Your task to perform on an android device: Open the stopwatch Image 0: 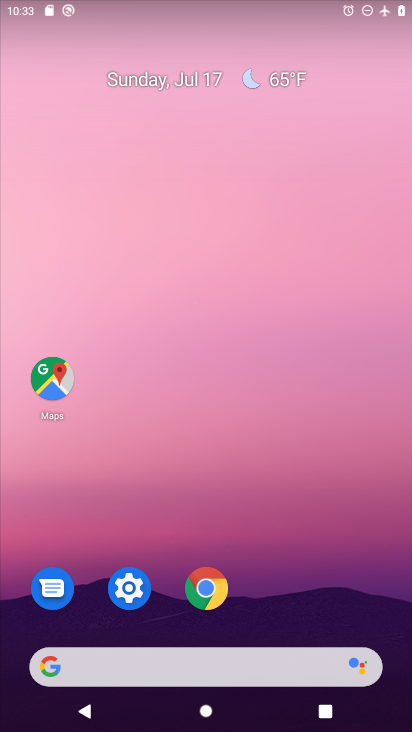
Step 0: drag from (223, 464) to (215, 258)
Your task to perform on an android device: Open the stopwatch Image 1: 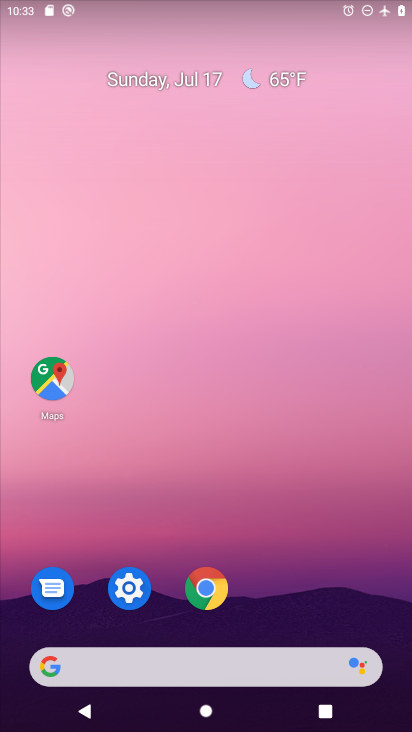
Step 1: drag from (233, 544) to (161, 128)
Your task to perform on an android device: Open the stopwatch Image 2: 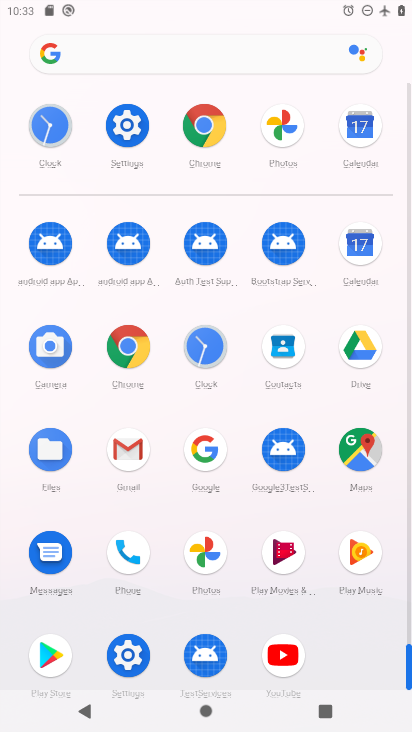
Step 2: drag from (246, 549) to (223, 312)
Your task to perform on an android device: Open the stopwatch Image 3: 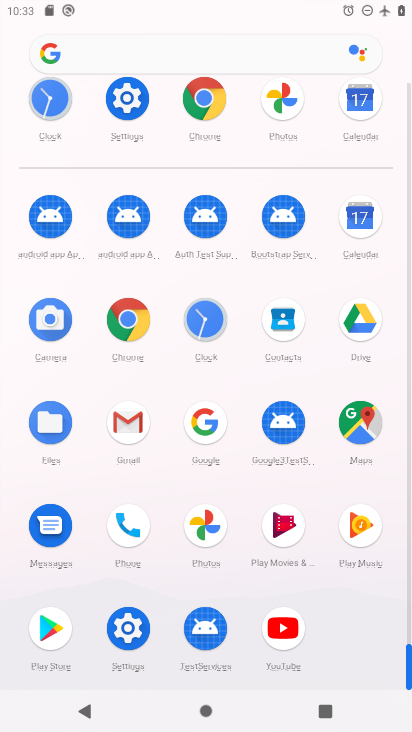
Step 3: click (128, 603)
Your task to perform on an android device: Open the stopwatch Image 4: 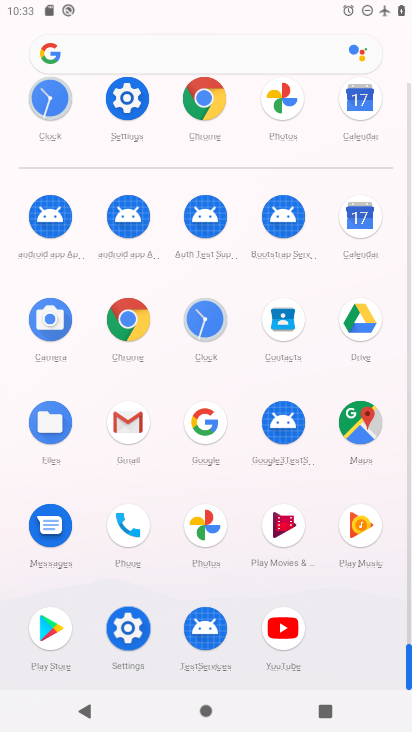
Step 4: click (124, 624)
Your task to perform on an android device: Open the stopwatch Image 5: 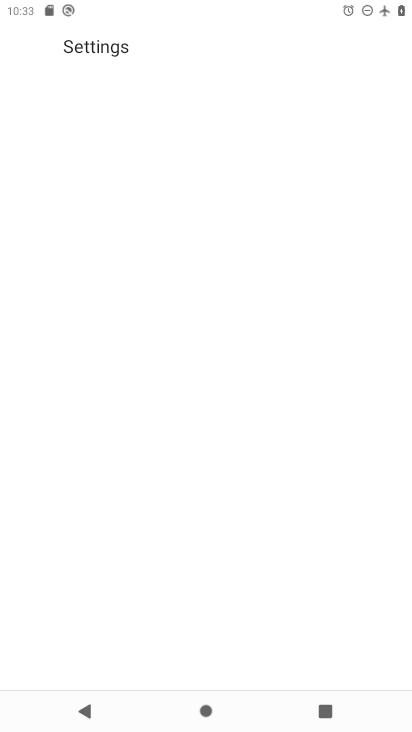
Step 5: click (126, 626)
Your task to perform on an android device: Open the stopwatch Image 6: 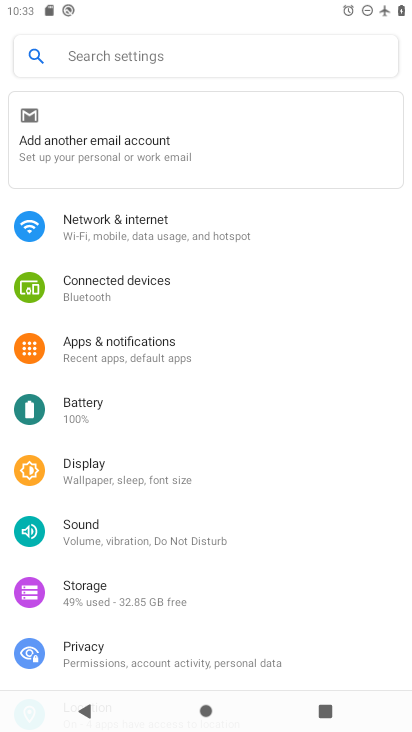
Step 6: click (127, 626)
Your task to perform on an android device: Open the stopwatch Image 7: 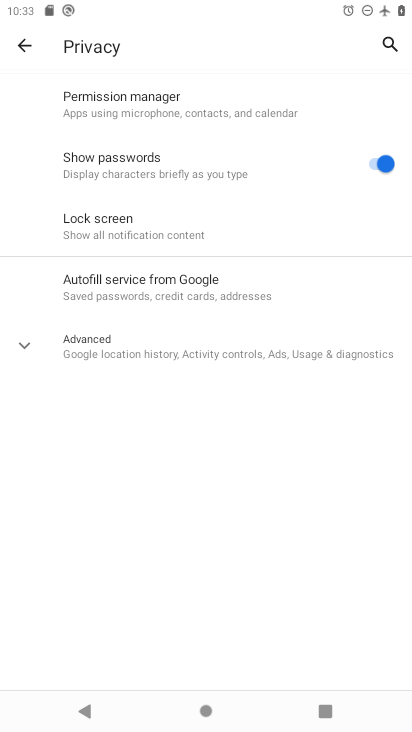
Step 7: click (17, 39)
Your task to perform on an android device: Open the stopwatch Image 8: 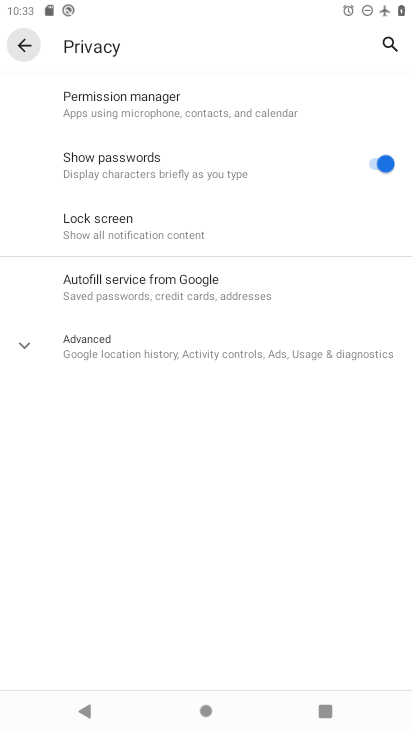
Step 8: click (16, 39)
Your task to perform on an android device: Open the stopwatch Image 9: 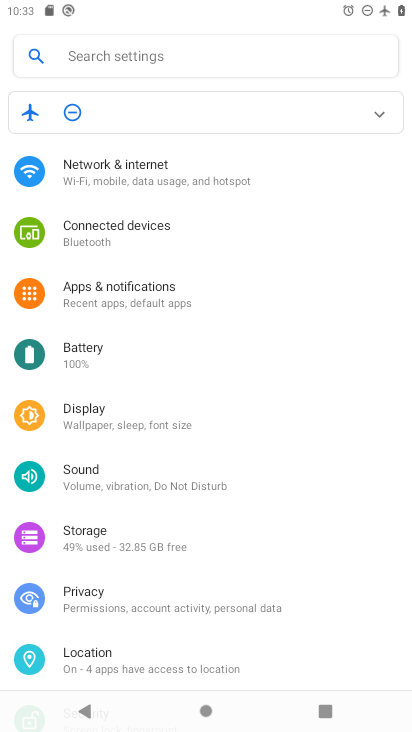
Step 9: drag from (137, 414) to (105, 144)
Your task to perform on an android device: Open the stopwatch Image 10: 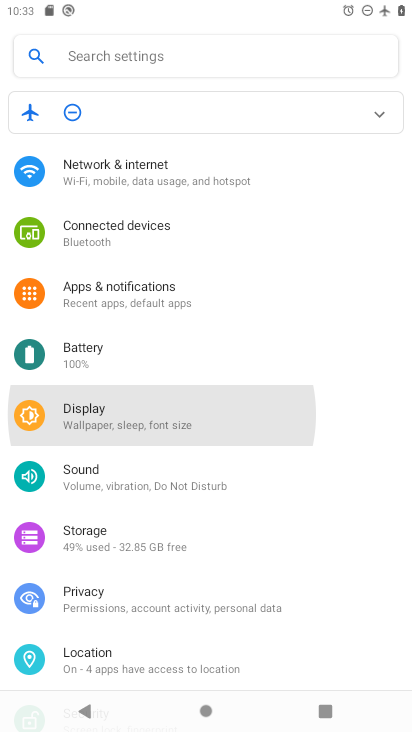
Step 10: drag from (255, 600) to (191, 117)
Your task to perform on an android device: Open the stopwatch Image 11: 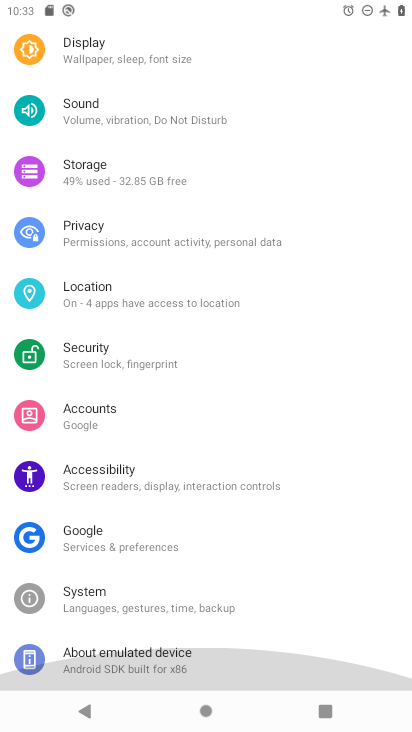
Step 11: drag from (213, 509) to (159, 51)
Your task to perform on an android device: Open the stopwatch Image 12: 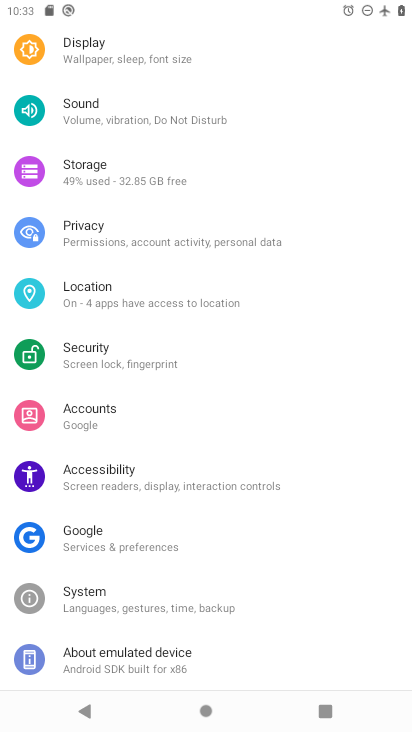
Step 12: drag from (66, 368) to (75, 609)
Your task to perform on an android device: Open the stopwatch Image 13: 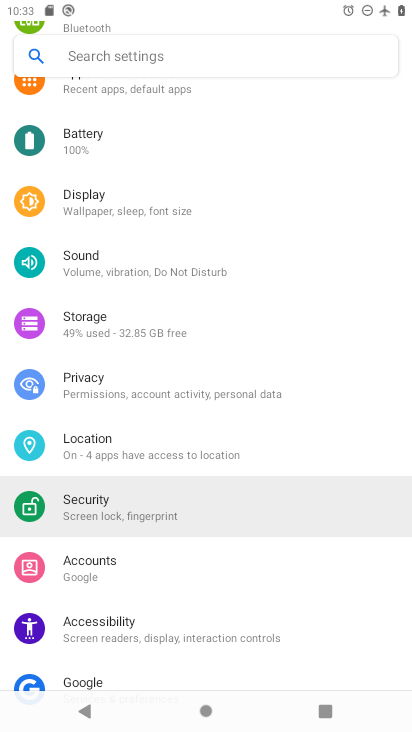
Step 13: click (139, 441)
Your task to perform on an android device: Open the stopwatch Image 14: 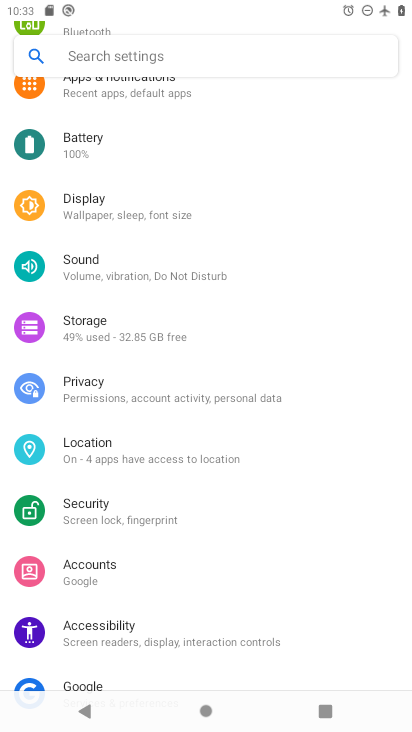
Step 14: drag from (119, 371) to (144, 565)
Your task to perform on an android device: Open the stopwatch Image 15: 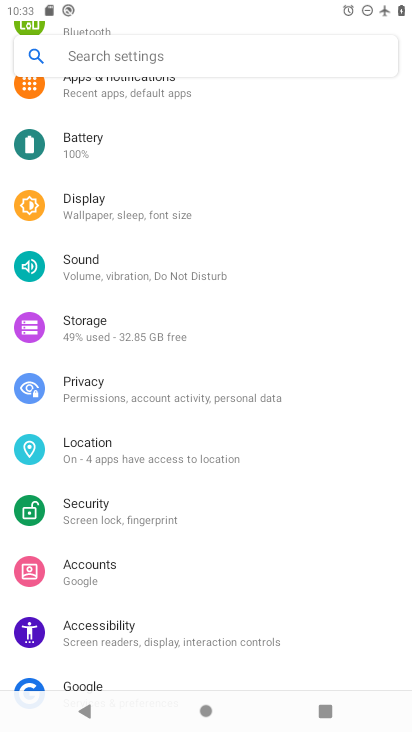
Step 15: drag from (188, 239) to (196, 517)
Your task to perform on an android device: Open the stopwatch Image 16: 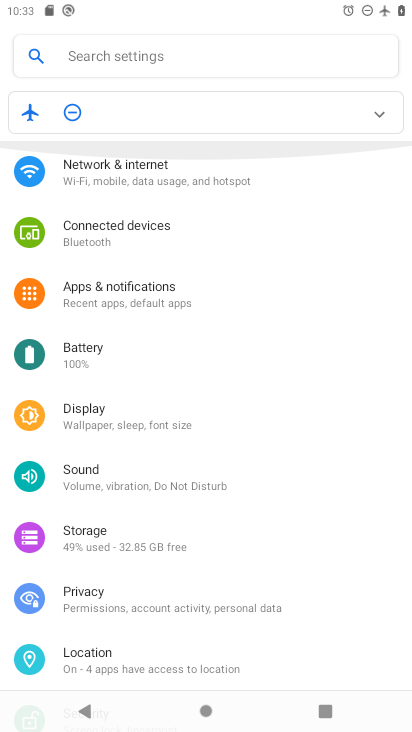
Step 16: click (123, 634)
Your task to perform on an android device: Open the stopwatch Image 17: 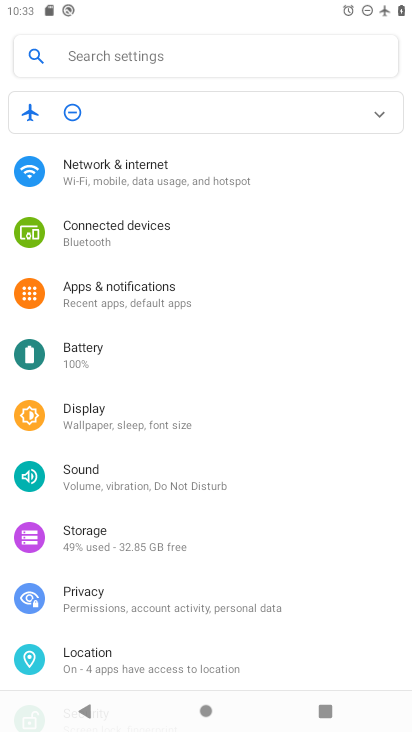
Step 17: drag from (185, 311) to (200, 606)
Your task to perform on an android device: Open the stopwatch Image 18: 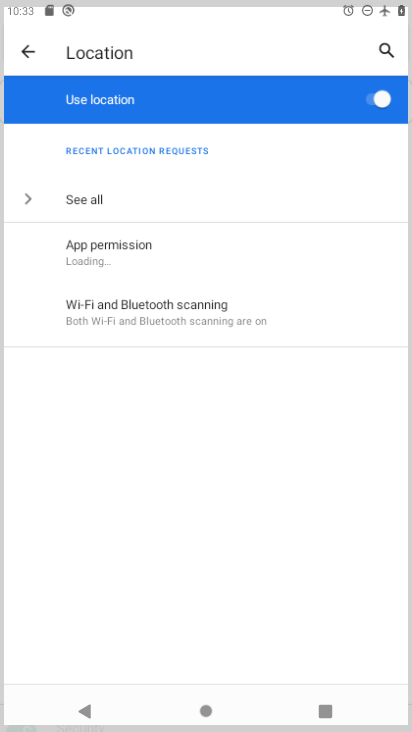
Step 18: drag from (192, 393) to (195, 477)
Your task to perform on an android device: Open the stopwatch Image 19: 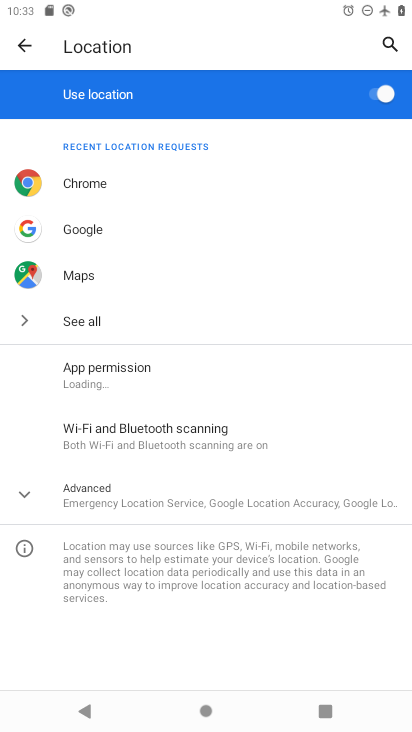
Step 19: drag from (126, 161) to (125, 560)
Your task to perform on an android device: Open the stopwatch Image 20: 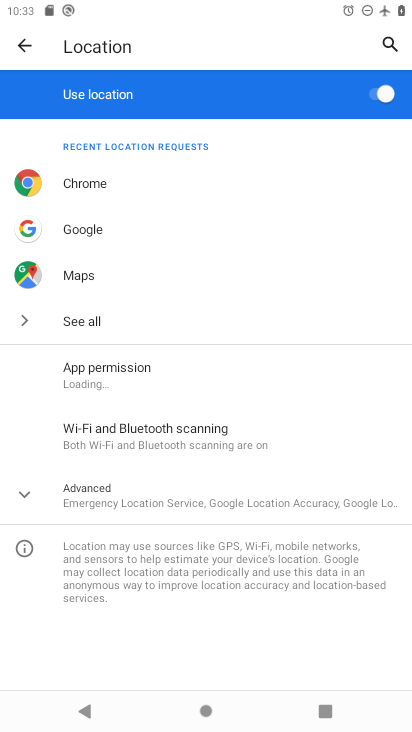
Step 20: click (23, 39)
Your task to perform on an android device: Open the stopwatch Image 21: 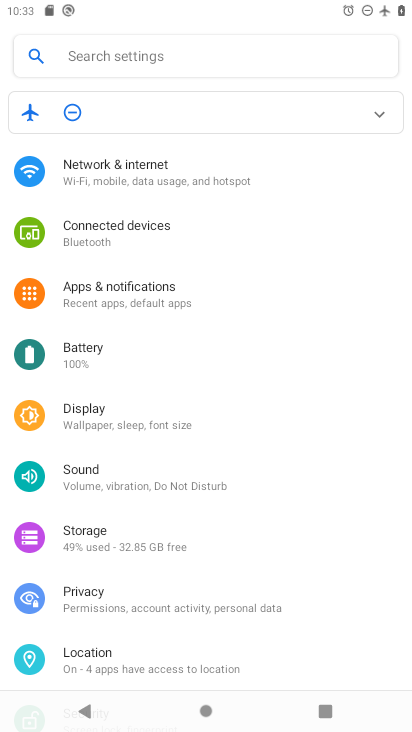
Step 21: press back button
Your task to perform on an android device: Open the stopwatch Image 22: 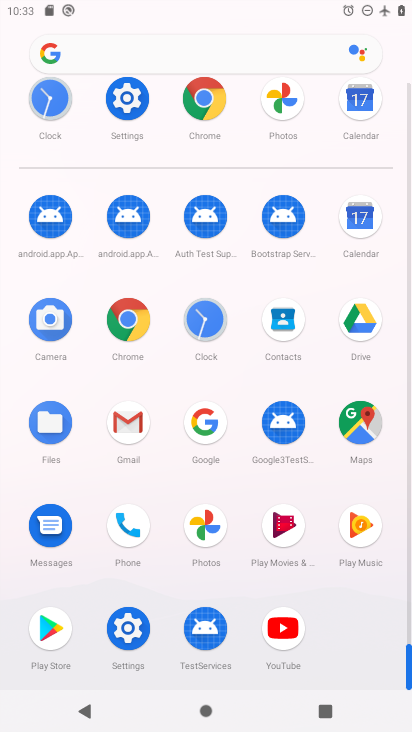
Step 22: click (211, 328)
Your task to perform on an android device: Open the stopwatch Image 23: 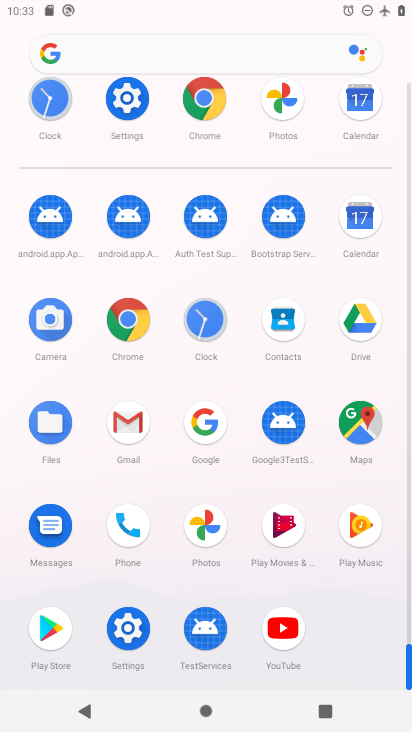
Step 23: click (214, 329)
Your task to perform on an android device: Open the stopwatch Image 24: 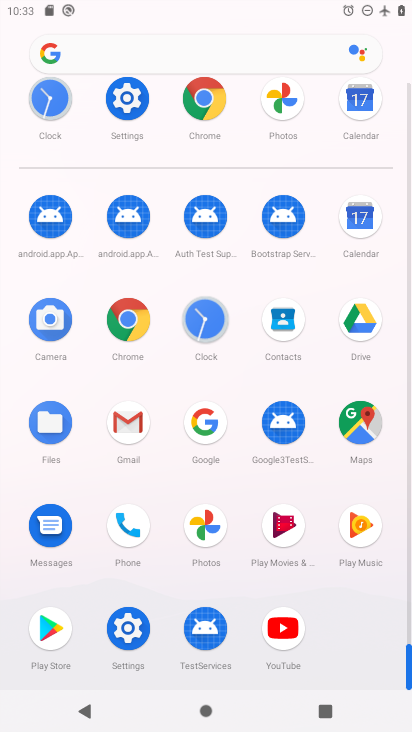
Step 24: click (223, 329)
Your task to perform on an android device: Open the stopwatch Image 25: 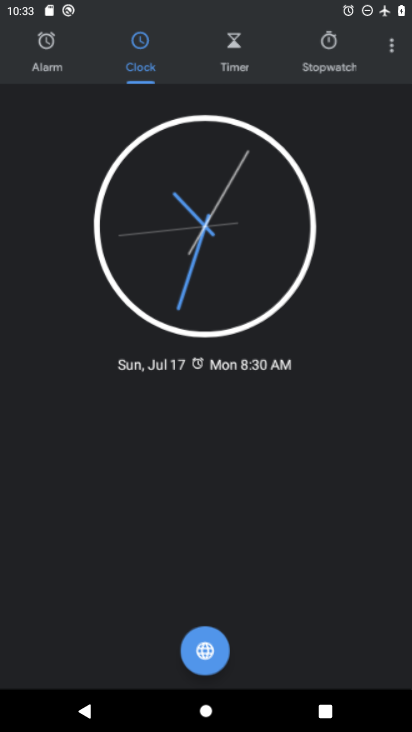
Step 25: click (224, 331)
Your task to perform on an android device: Open the stopwatch Image 26: 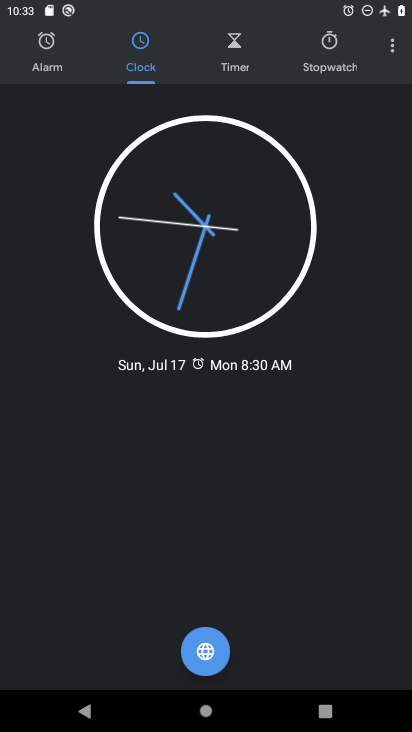
Step 26: click (333, 39)
Your task to perform on an android device: Open the stopwatch Image 27: 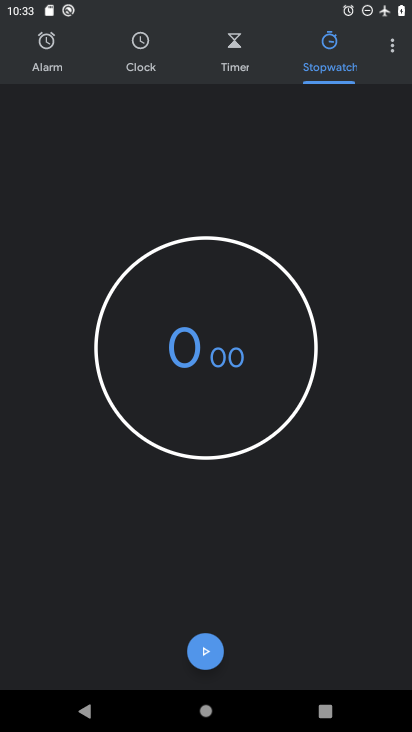
Step 27: click (332, 46)
Your task to perform on an android device: Open the stopwatch Image 28: 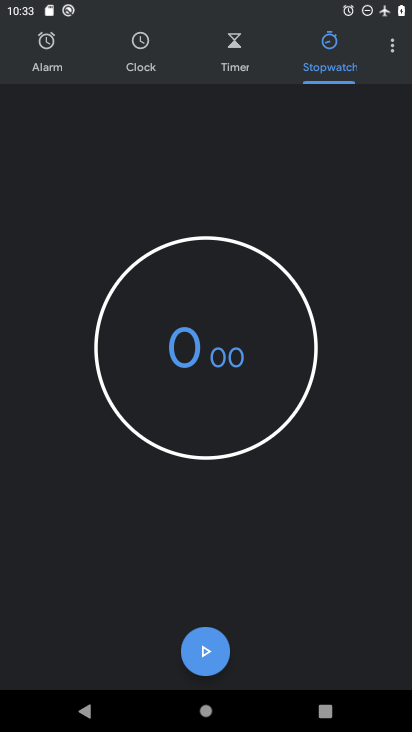
Step 28: click (332, 46)
Your task to perform on an android device: Open the stopwatch Image 29: 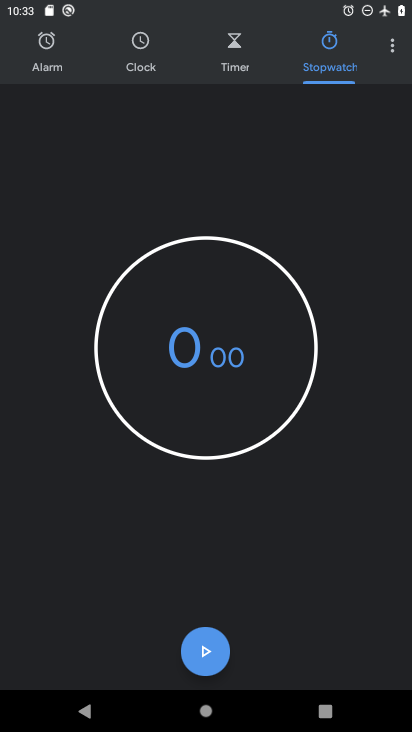
Step 29: click (211, 646)
Your task to perform on an android device: Open the stopwatch Image 30: 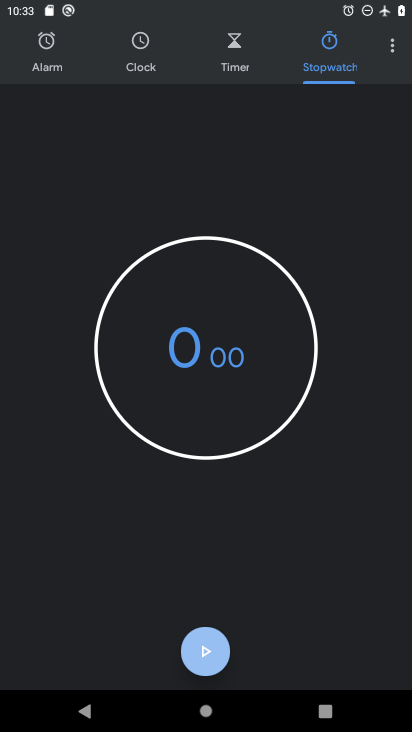
Step 30: click (211, 646)
Your task to perform on an android device: Open the stopwatch Image 31: 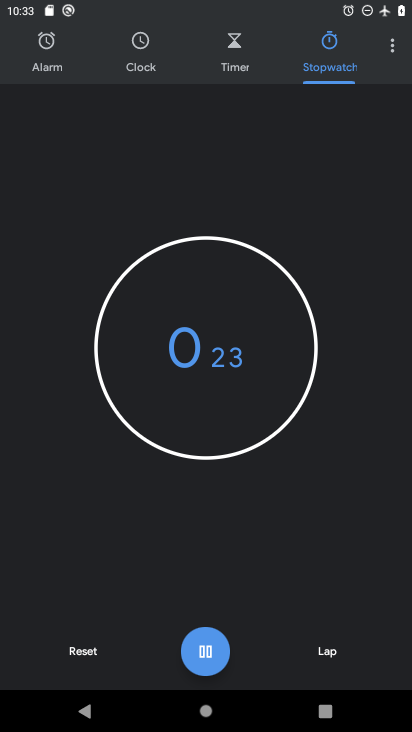
Step 31: click (211, 646)
Your task to perform on an android device: Open the stopwatch Image 32: 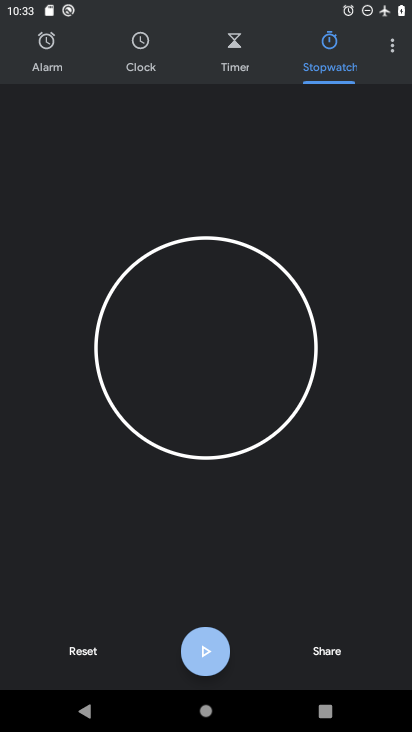
Step 32: click (213, 646)
Your task to perform on an android device: Open the stopwatch Image 33: 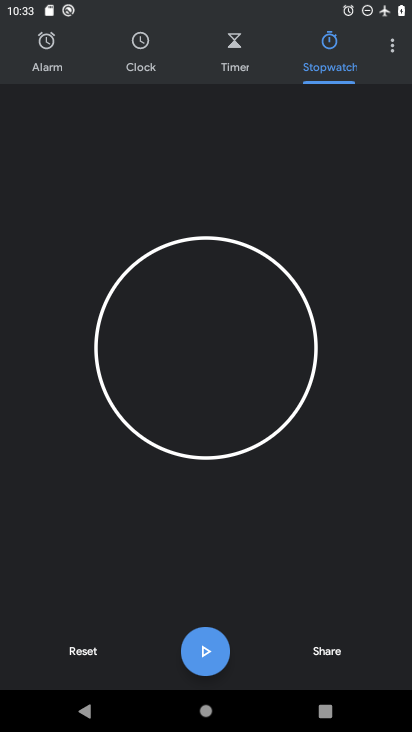
Step 33: click (205, 649)
Your task to perform on an android device: Open the stopwatch Image 34: 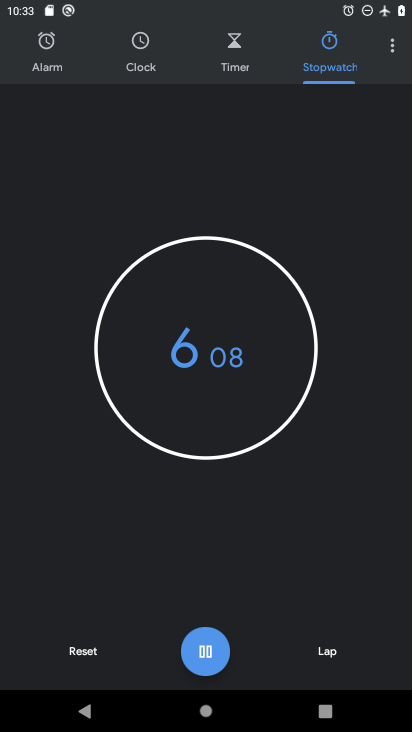
Step 34: click (202, 658)
Your task to perform on an android device: Open the stopwatch Image 35: 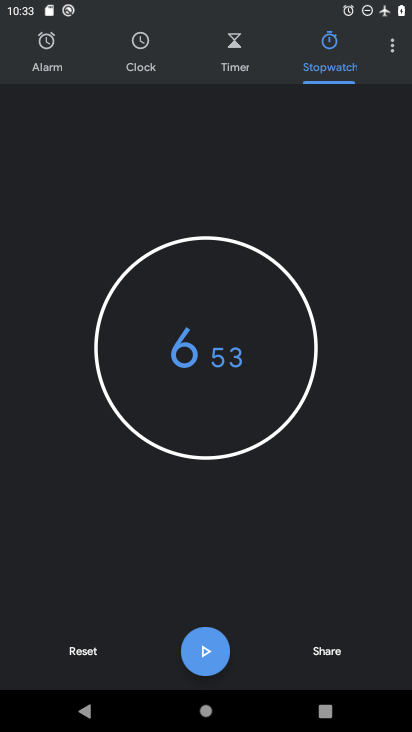
Step 35: click (202, 658)
Your task to perform on an android device: Open the stopwatch Image 36: 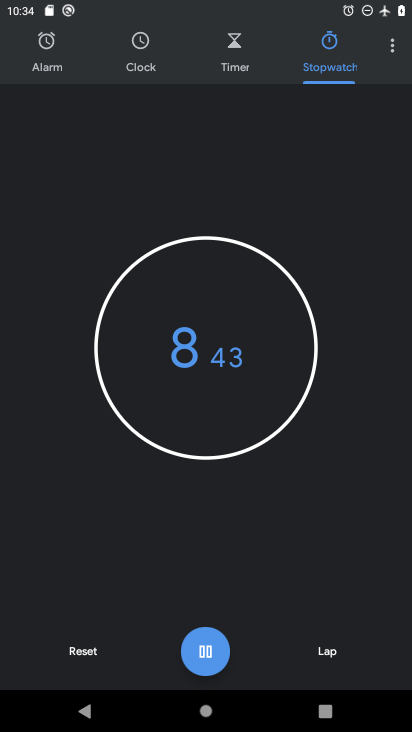
Step 36: click (206, 652)
Your task to perform on an android device: Open the stopwatch Image 37: 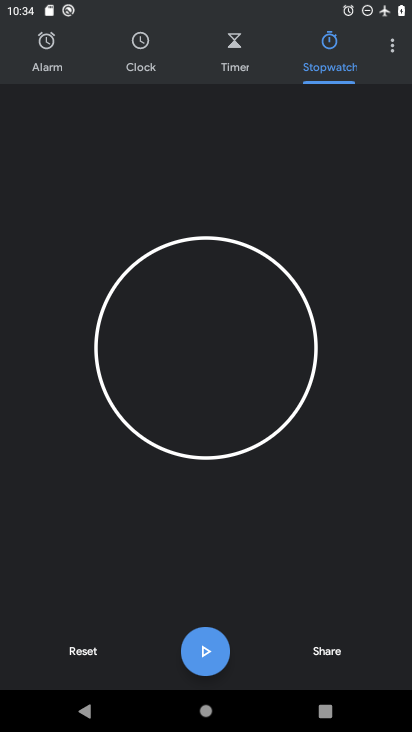
Step 37: task complete